Your task to perform on an android device: Set the phone to "Do not disturb". Image 0: 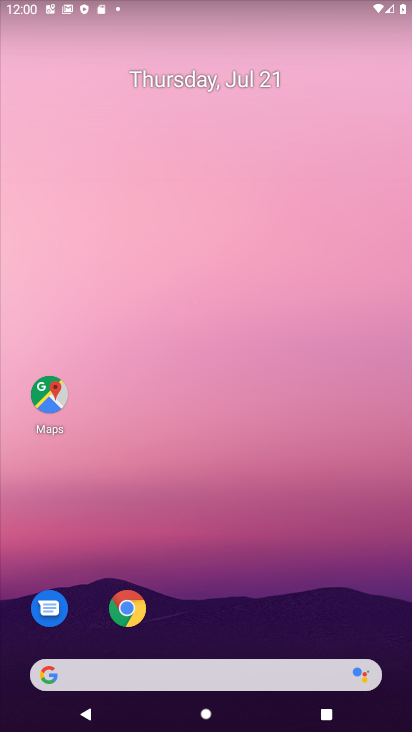
Step 0: drag from (224, 1) to (236, 304)
Your task to perform on an android device: Set the phone to "Do not disturb". Image 1: 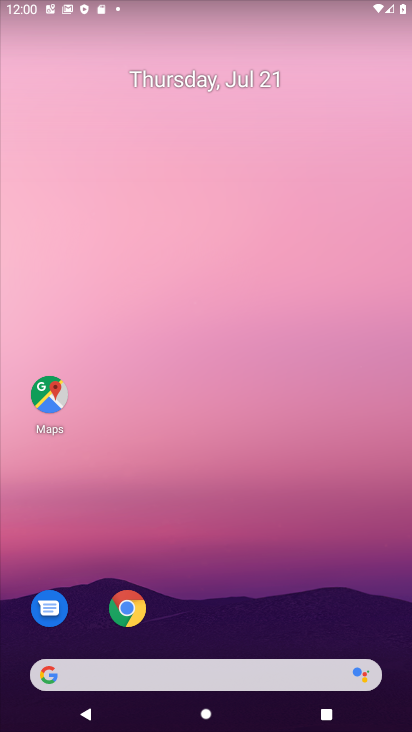
Step 1: drag from (179, 6) to (211, 454)
Your task to perform on an android device: Set the phone to "Do not disturb". Image 2: 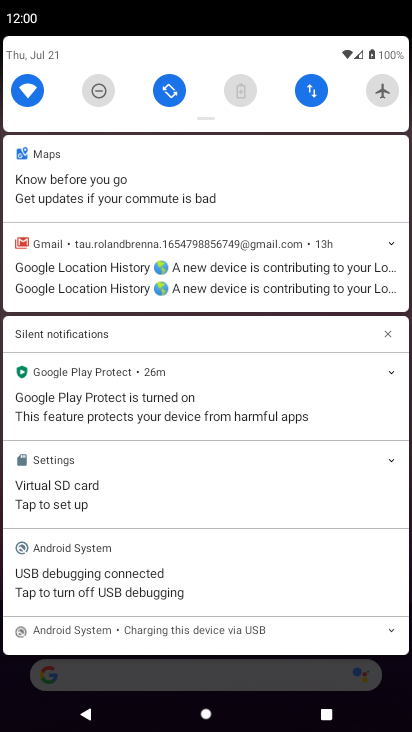
Step 2: click (99, 83)
Your task to perform on an android device: Set the phone to "Do not disturb". Image 3: 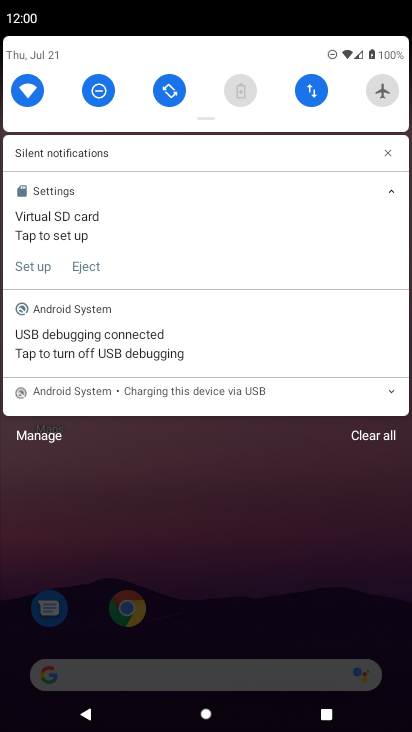
Step 3: task complete